Your task to perform on an android device: Open Chrome and go to settings Image 0: 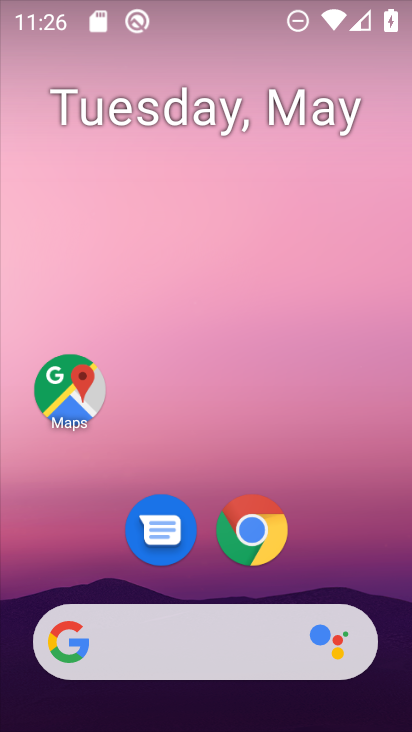
Step 0: click (267, 521)
Your task to perform on an android device: Open Chrome and go to settings Image 1: 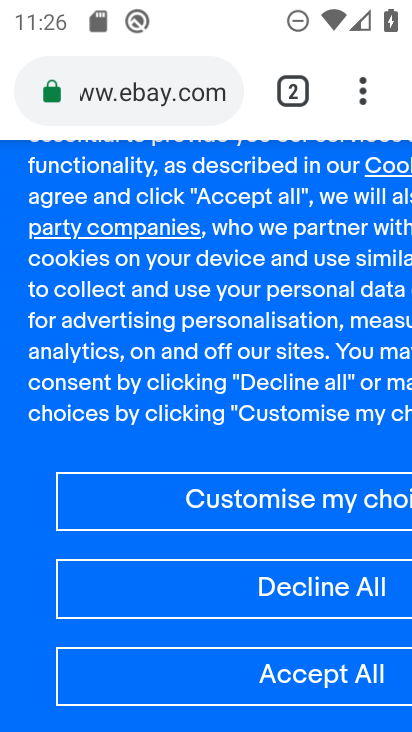
Step 1: task complete